Your task to perform on an android device: turn on data saver in the chrome app Image 0: 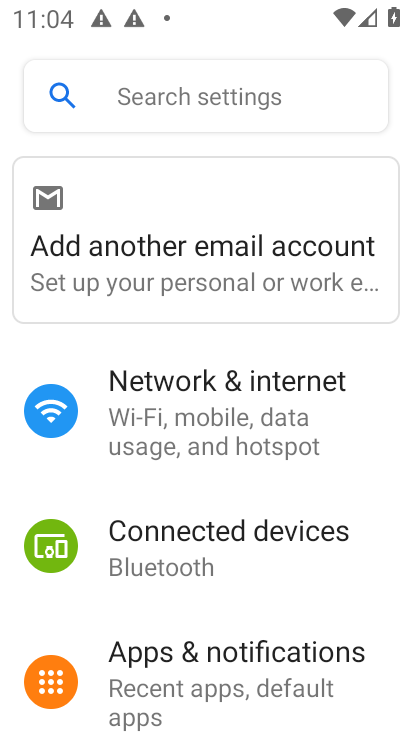
Step 0: press home button
Your task to perform on an android device: turn on data saver in the chrome app Image 1: 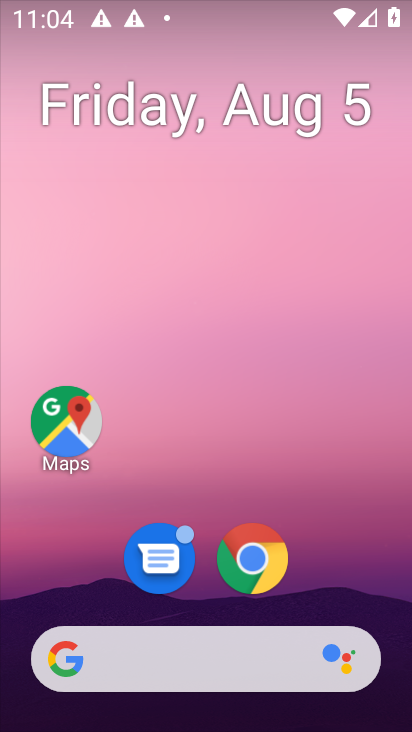
Step 1: drag from (342, 560) to (391, 136)
Your task to perform on an android device: turn on data saver in the chrome app Image 2: 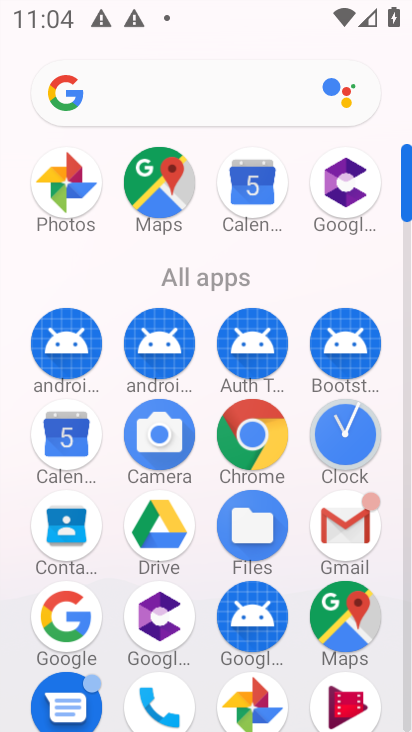
Step 2: click (267, 430)
Your task to perform on an android device: turn on data saver in the chrome app Image 3: 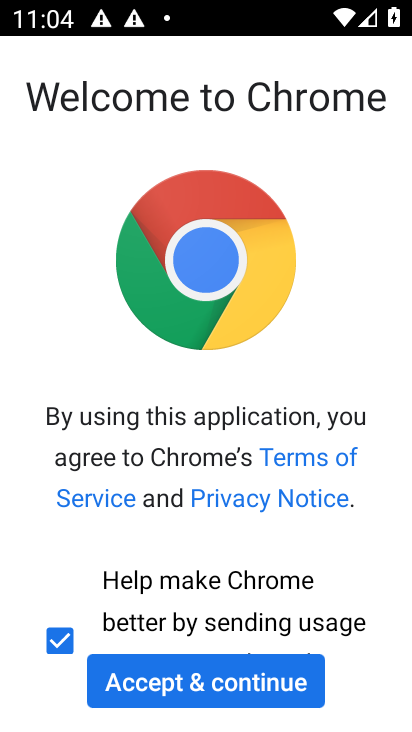
Step 3: click (232, 687)
Your task to perform on an android device: turn on data saver in the chrome app Image 4: 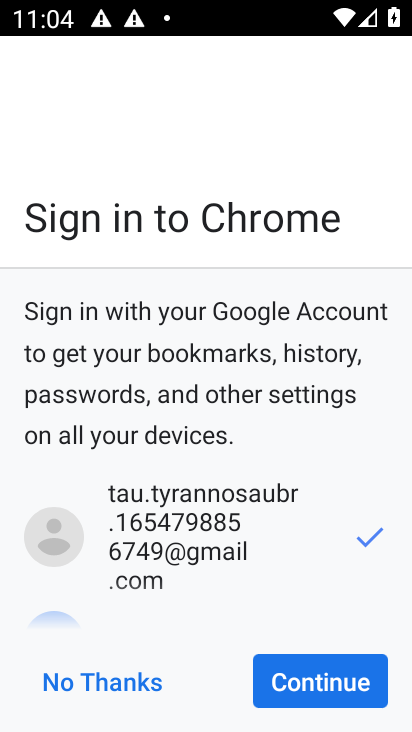
Step 4: click (296, 676)
Your task to perform on an android device: turn on data saver in the chrome app Image 5: 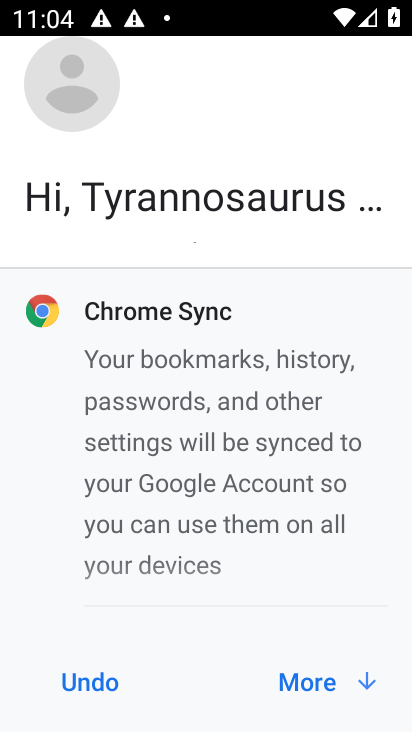
Step 5: click (296, 676)
Your task to perform on an android device: turn on data saver in the chrome app Image 6: 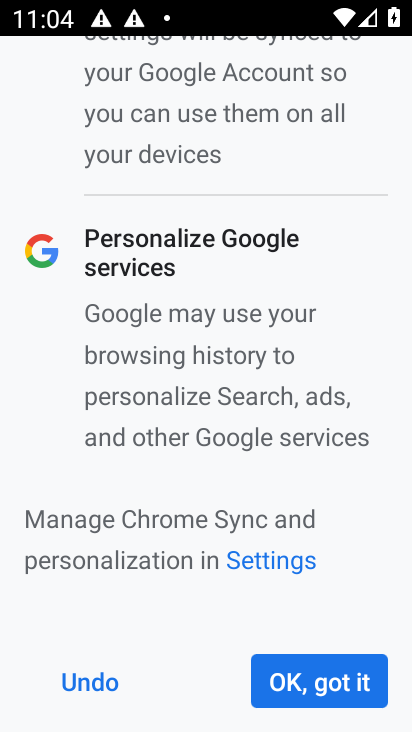
Step 6: click (296, 676)
Your task to perform on an android device: turn on data saver in the chrome app Image 7: 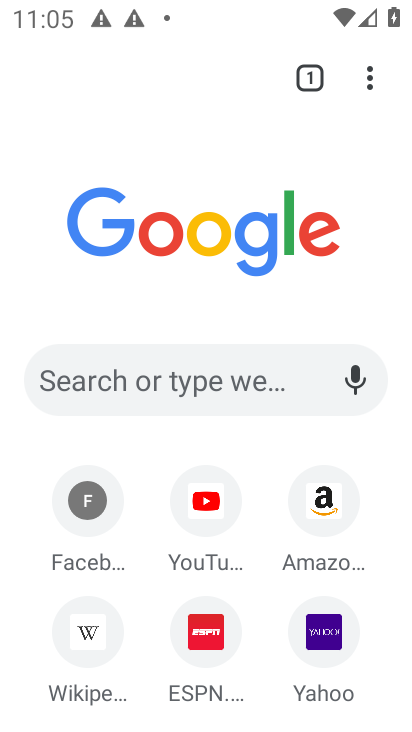
Step 7: click (370, 78)
Your task to perform on an android device: turn on data saver in the chrome app Image 8: 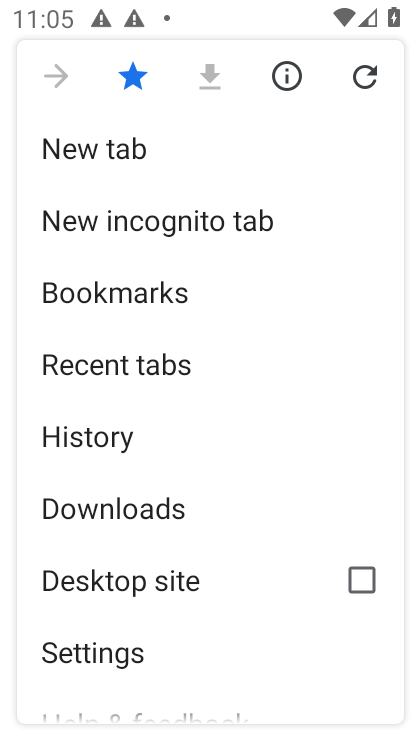
Step 8: click (165, 649)
Your task to perform on an android device: turn on data saver in the chrome app Image 9: 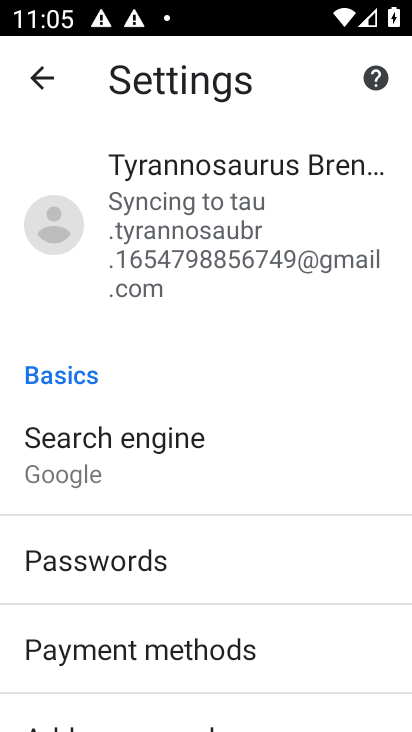
Step 9: drag from (316, 538) to (312, 434)
Your task to perform on an android device: turn on data saver in the chrome app Image 10: 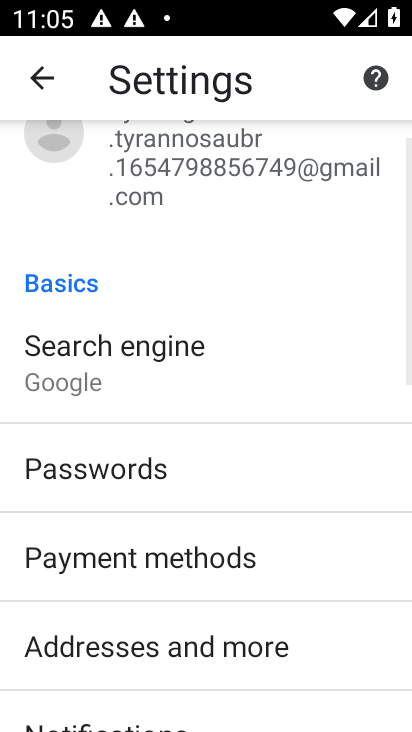
Step 10: drag from (327, 580) to (349, 388)
Your task to perform on an android device: turn on data saver in the chrome app Image 11: 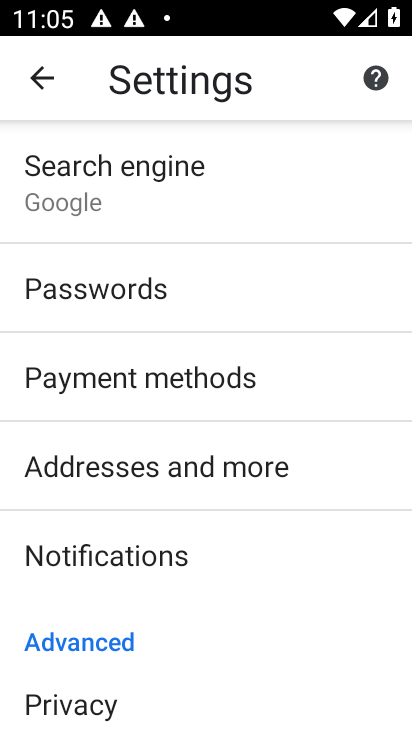
Step 11: drag from (323, 536) to (343, 412)
Your task to perform on an android device: turn on data saver in the chrome app Image 12: 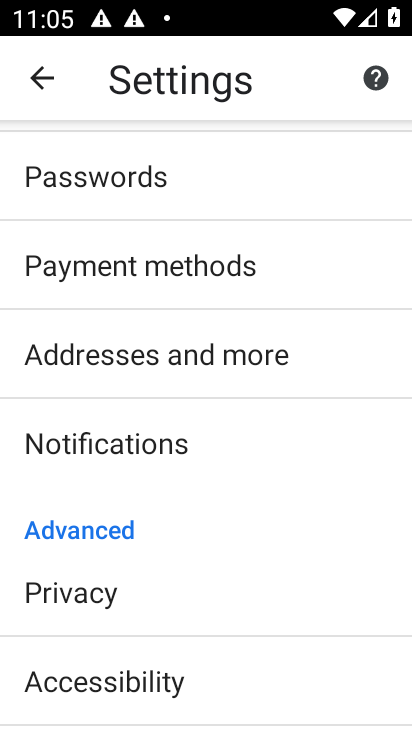
Step 12: drag from (317, 552) to (344, 393)
Your task to perform on an android device: turn on data saver in the chrome app Image 13: 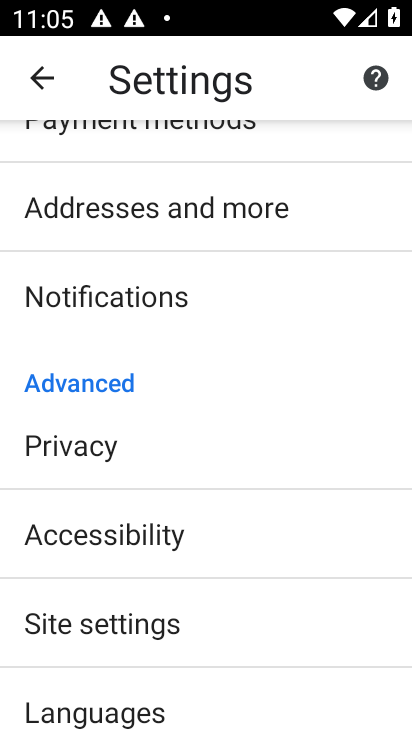
Step 13: drag from (294, 607) to (327, 418)
Your task to perform on an android device: turn on data saver in the chrome app Image 14: 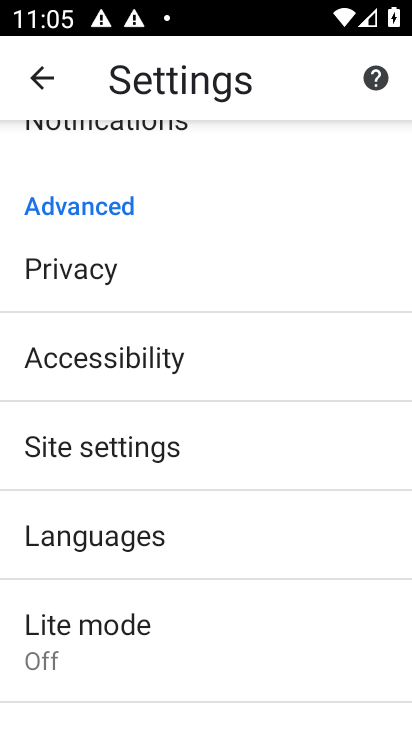
Step 14: click (311, 629)
Your task to perform on an android device: turn on data saver in the chrome app Image 15: 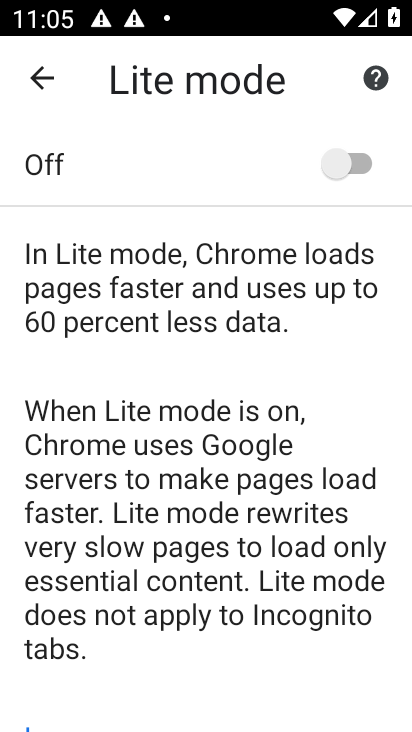
Step 15: click (333, 164)
Your task to perform on an android device: turn on data saver in the chrome app Image 16: 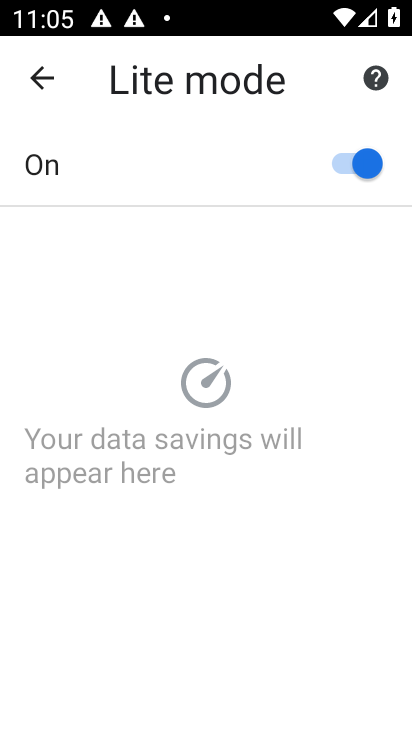
Step 16: task complete